Your task to perform on an android device: Open privacy settings Image 0: 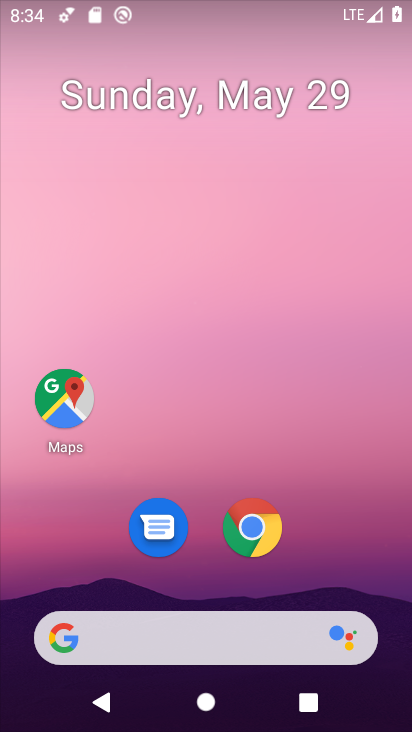
Step 0: drag from (205, 595) to (205, 80)
Your task to perform on an android device: Open privacy settings Image 1: 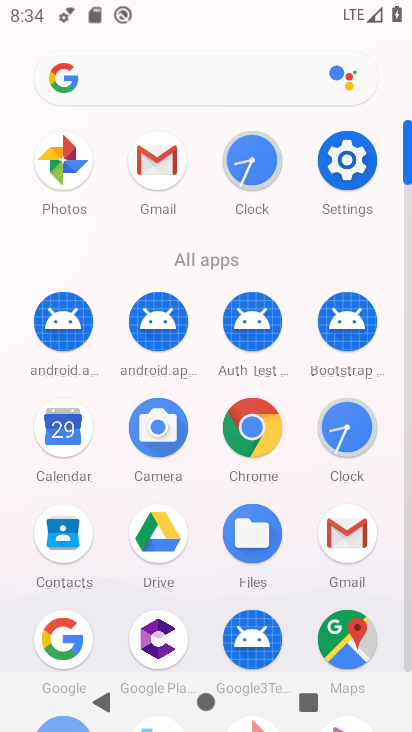
Step 1: click (344, 155)
Your task to perform on an android device: Open privacy settings Image 2: 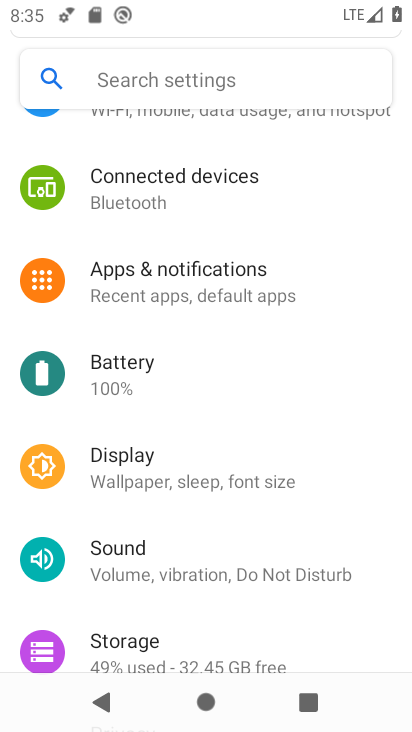
Step 2: drag from (198, 531) to (238, 135)
Your task to perform on an android device: Open privacy settings Image 3: 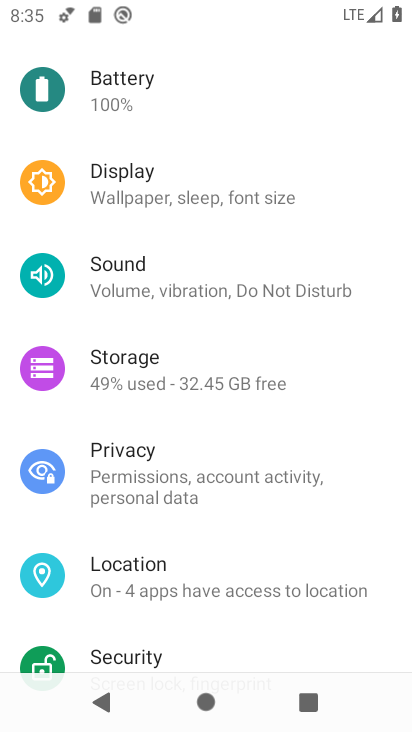
Step 3: click (145, 469)
Your task to perform on an android device: Open privacy settings Image 4: 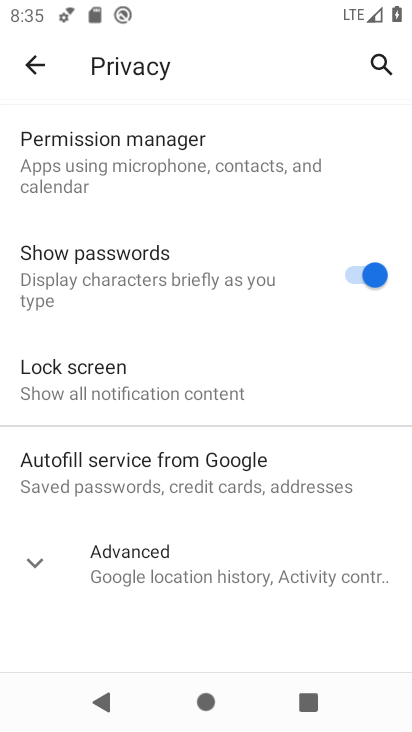
Step 4: click (55, 552)
Your task to perform on an android device: Open privacy settings Image 5: 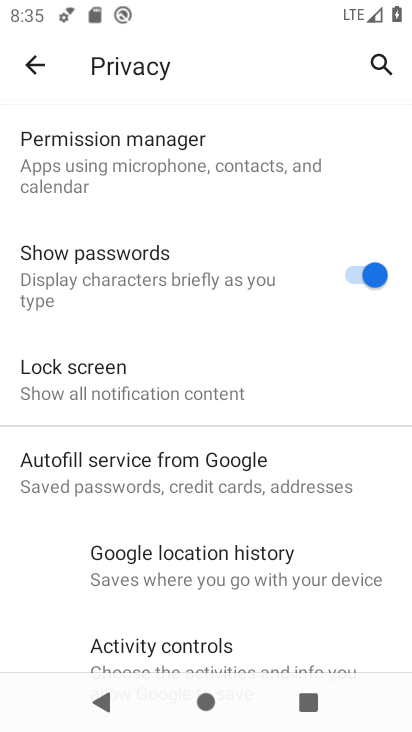
Step 5: task complete